Your task to perform on an android device: turn vacation reply on in the gmail app Image 0: 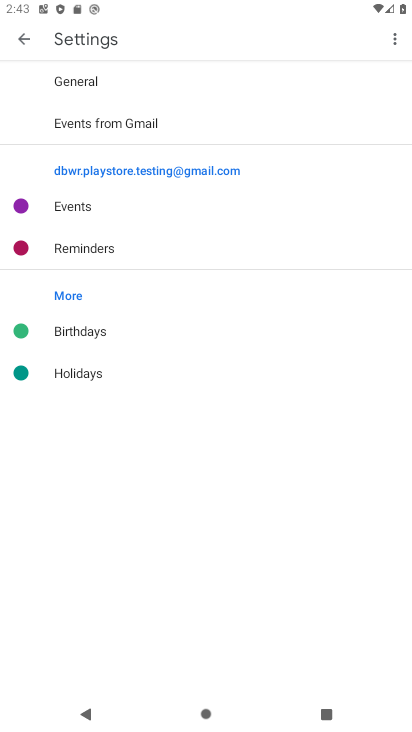
Step 0: press back button
Your task to perform on an android device: turn vacation reply on in the gmail app Image 1: 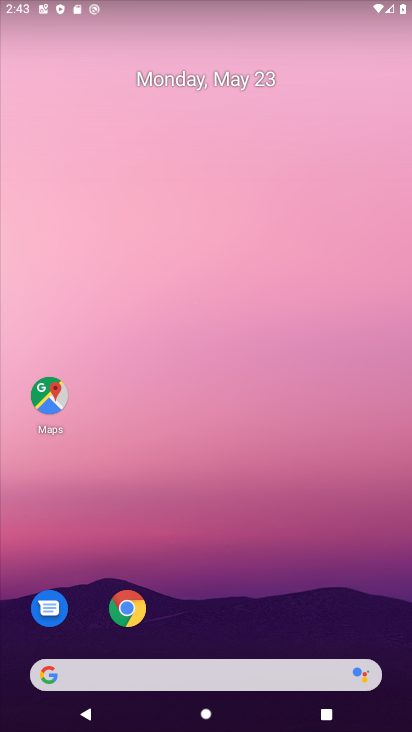
Step 1: drag from (259, 549) to (242, 58)
Your task to perform on an android device: turn vacation reply on in the gmail app Image 2: 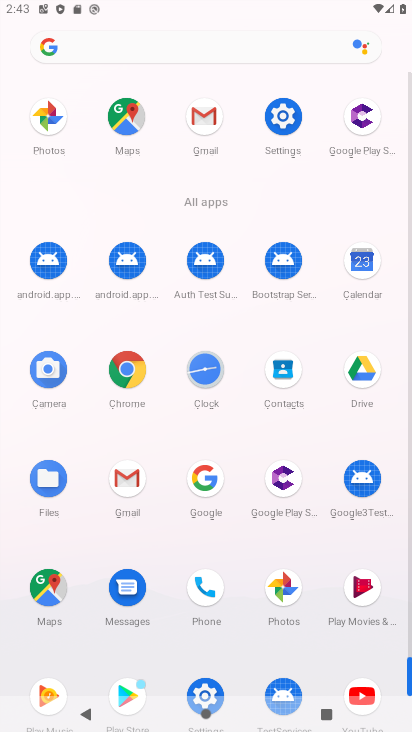
Step 2: click (204, 114)
Your task to perform on an android device: turn vacation reply on in the gmail app Image 3: 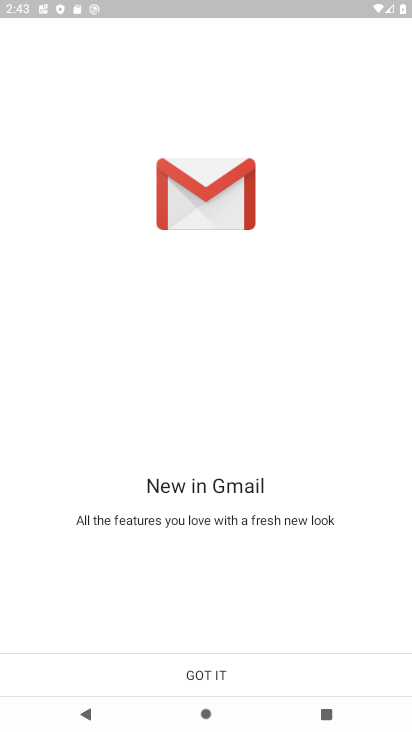
Step 3: click (203, 670)
Your task to perform on an android device: turn vacation reply on in the gmail app Image 4: 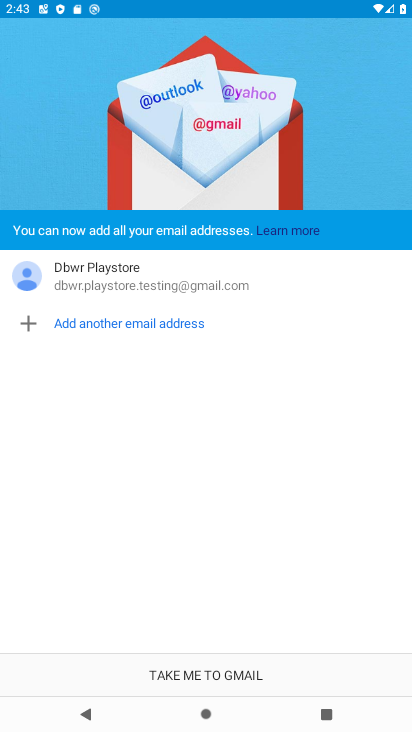
Step 4: click (203, 670)
Your task to perform on an android device: turn vacation reply on in the gmail app Image 5: 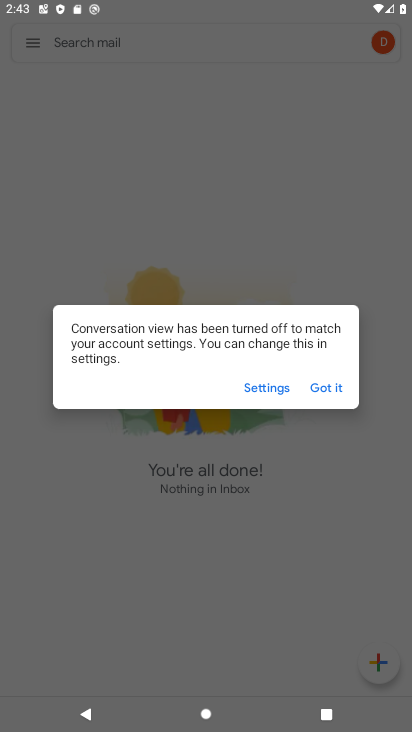
Step 5: click (335, 388)
Your task to perform on an android device: turn vacation reply on in the gmail app Image 6: 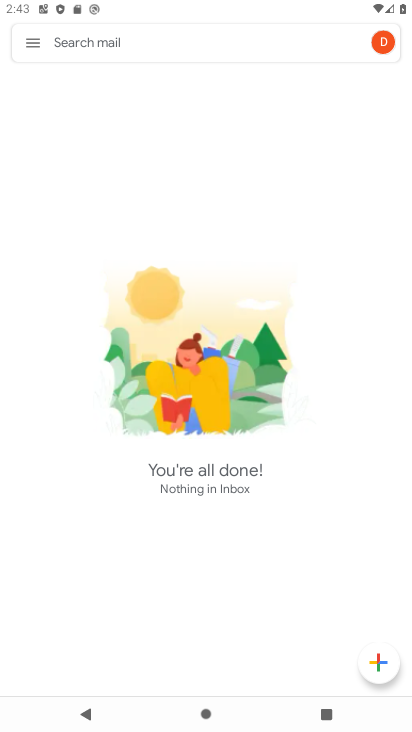
Step 6: click (31, 40)
Your task to perform on an android device: turn vacation reply on in the gmail app Image 7: 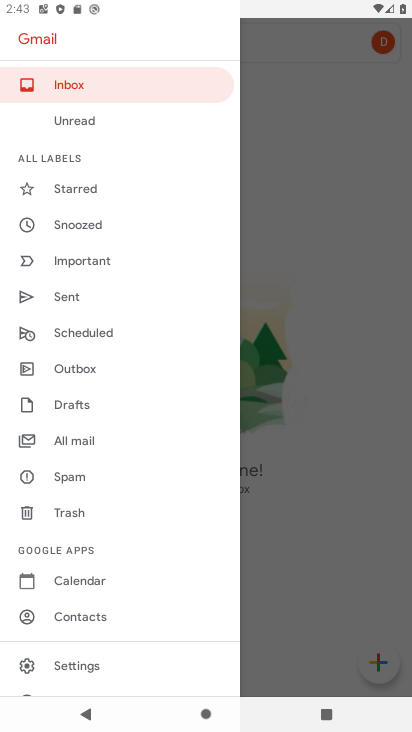
Step 7: click (74, 661)
Your task to perform on an android device: turn vacation reply on in the gmail app Image 8: 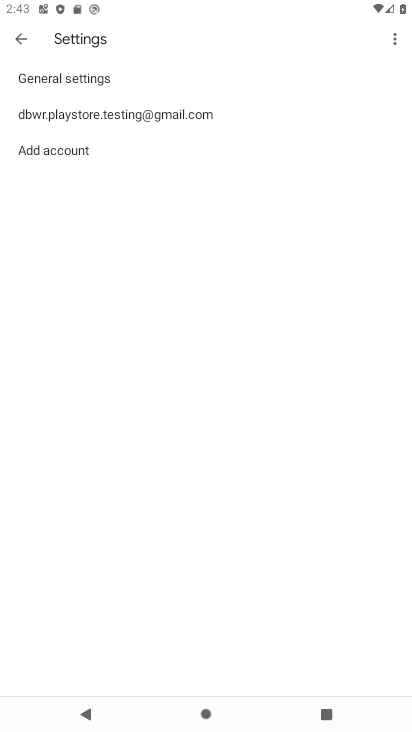
Step 8: click (101, 110)
Your task to perform on an android device: turn vacation reply on in the gmail app Image 9: 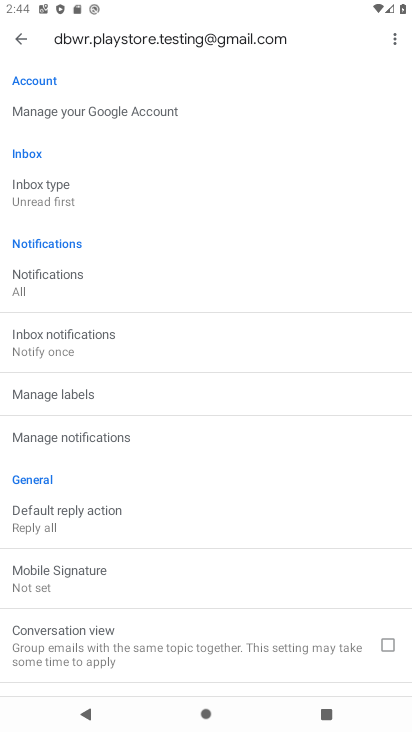
Step 9: drag from (92, 587) to (144, 505)
Your task to perform on an android device: turn vacation reply on in the gmail app Image 10: 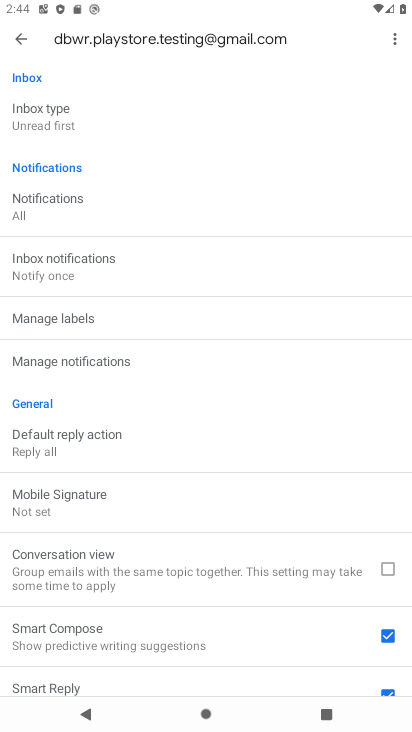
Step 10: drag from (73, 593) to (154, 491)
Your task to perform on an android device: turn vacation reply on in the gmail app Image 11: 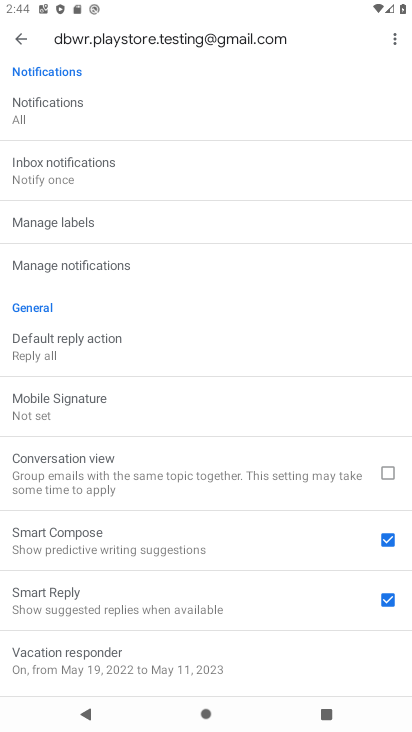
Step 11: drag from (99, 575) to (179, 480)
Your task to perform on an android device: turn vacation reply on in the gmail app Image 12: 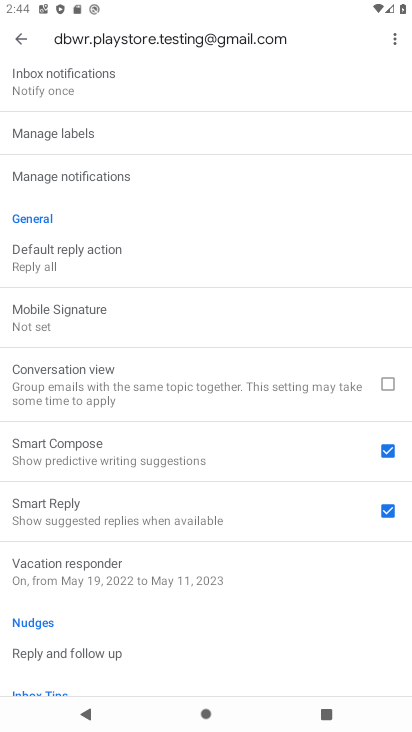
Step 12: click (128, 561)
Your task to perform on an android device: turn vacation reply on in the gmail app Image 13: 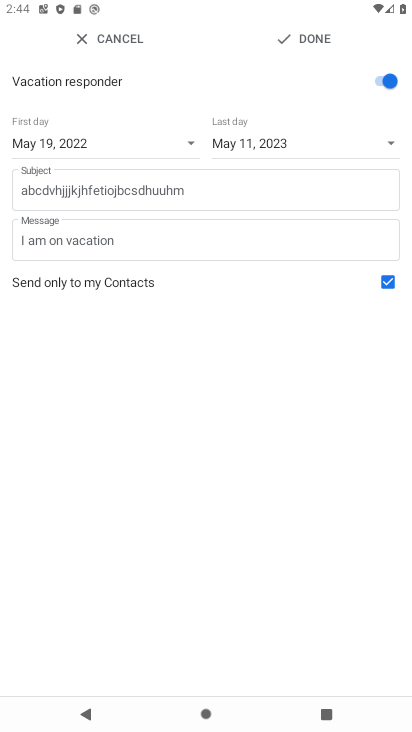
Step 13: task complete